Your task to perform on an android device: manage bookmarks in the chrome app Image 0: 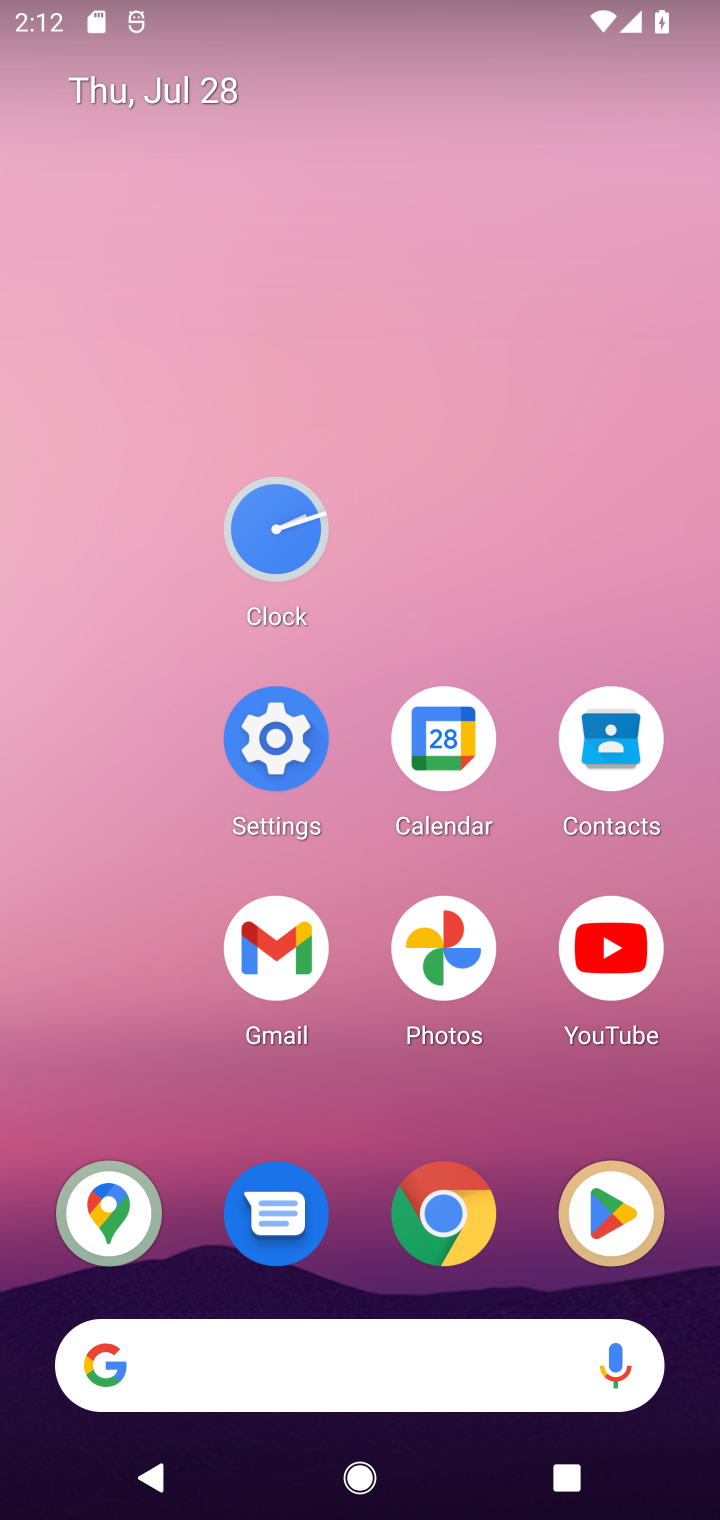
Step 0: click (451, 1208)
Your task to perform on an android device: manage bookmarks in the chrome app Image 1: 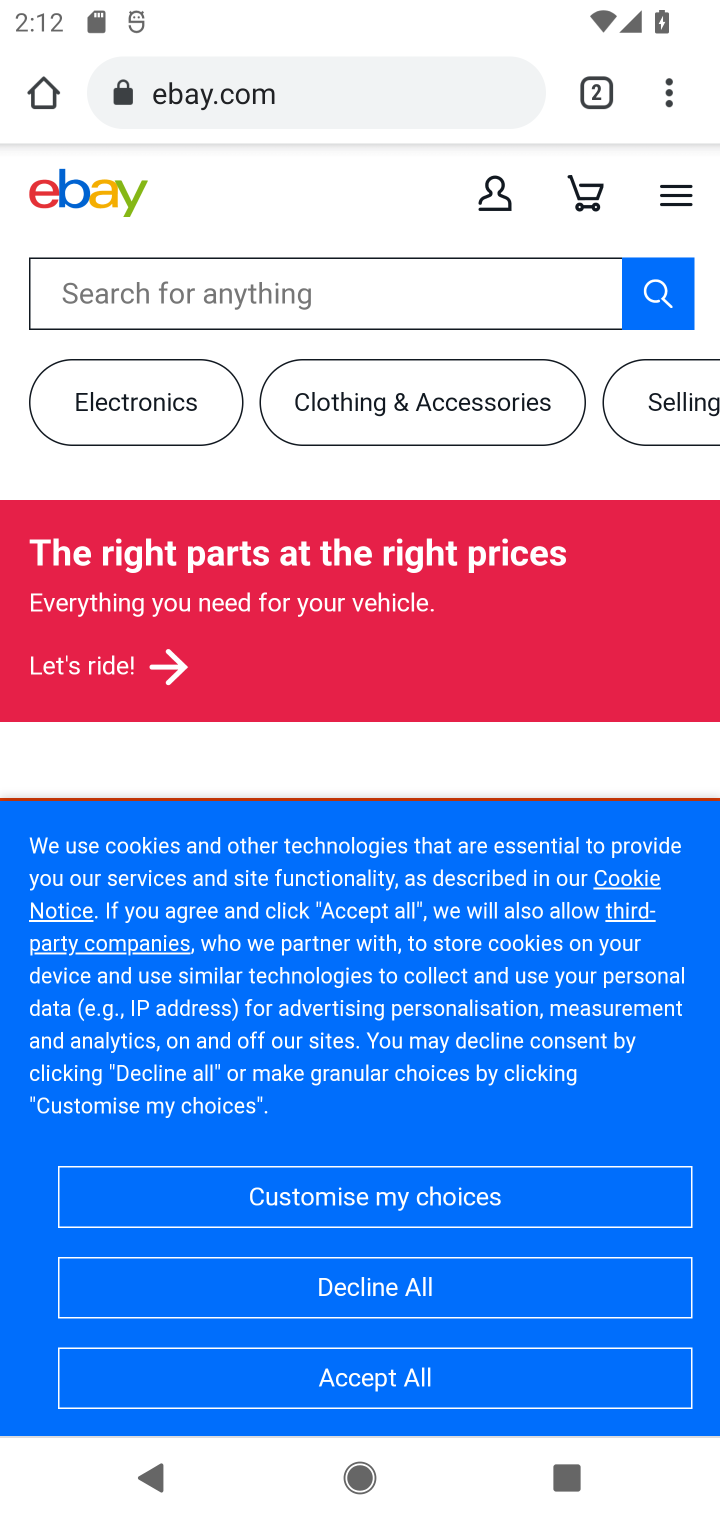
Step 1: click (685, 98)
Your task to perform on an android device: manage bookmarks in the chrome app Image 2: 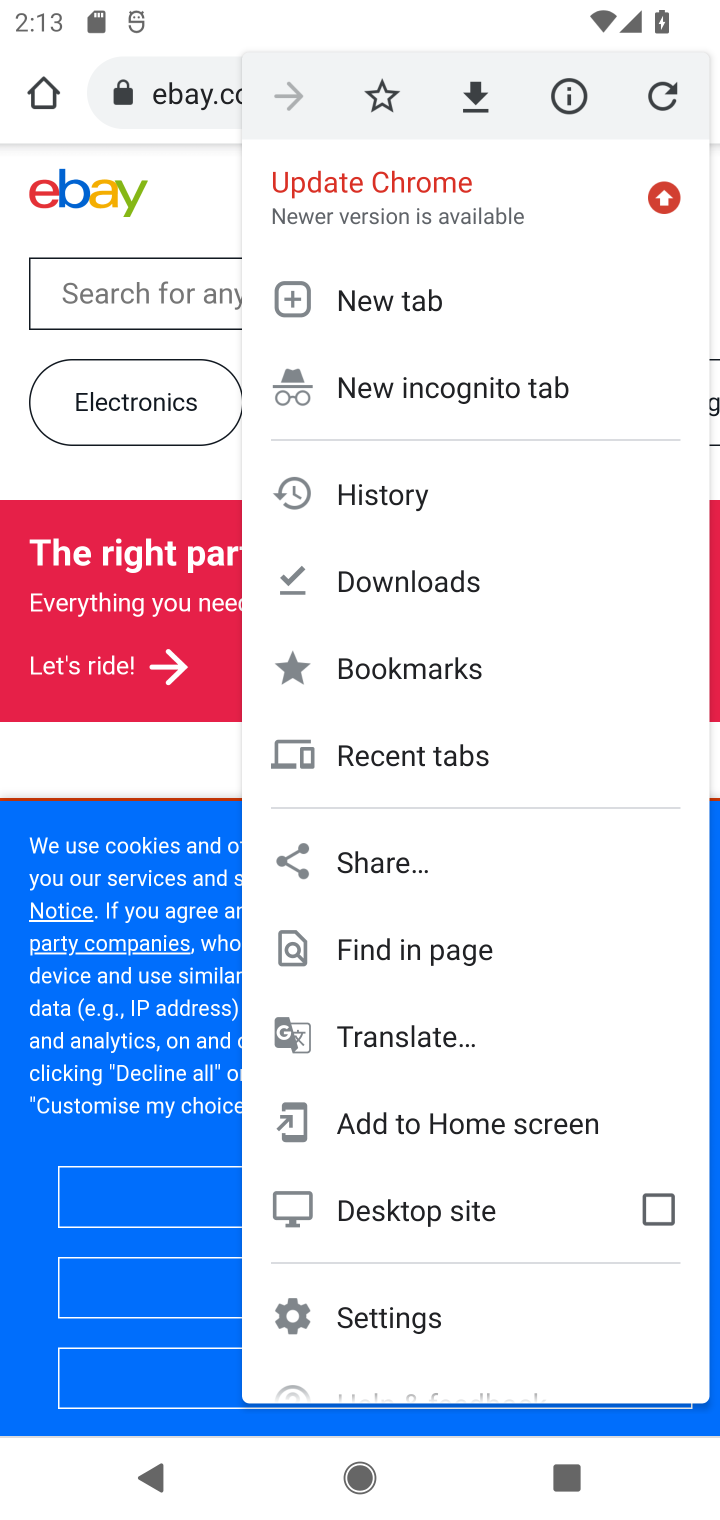
Step 2: click (420, 676)
Your task to perform on an android device: manage bookmarks in the chrome app Image 3: 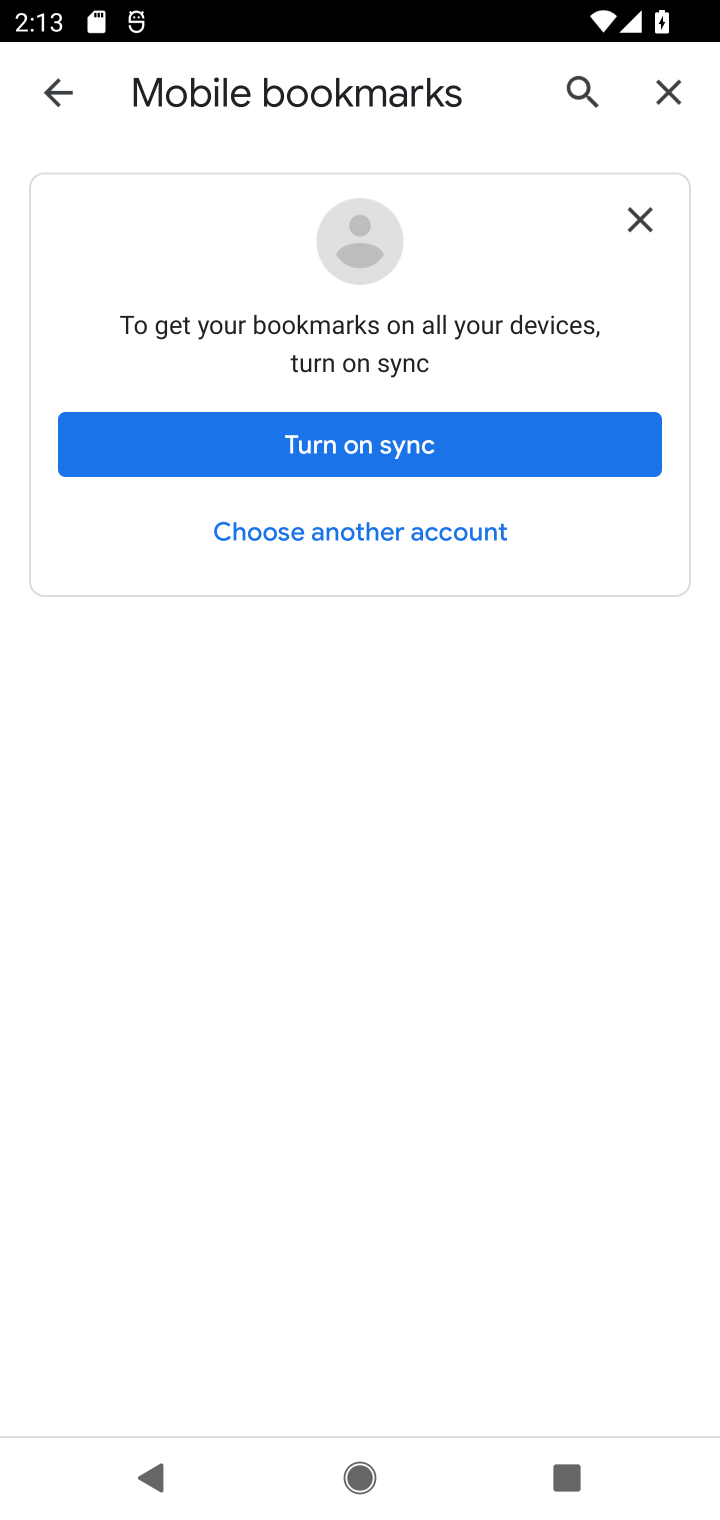
Step 3: click (647, 200)
Your task to perform on an android device: manage bookmarks in the chrome app Image 4: 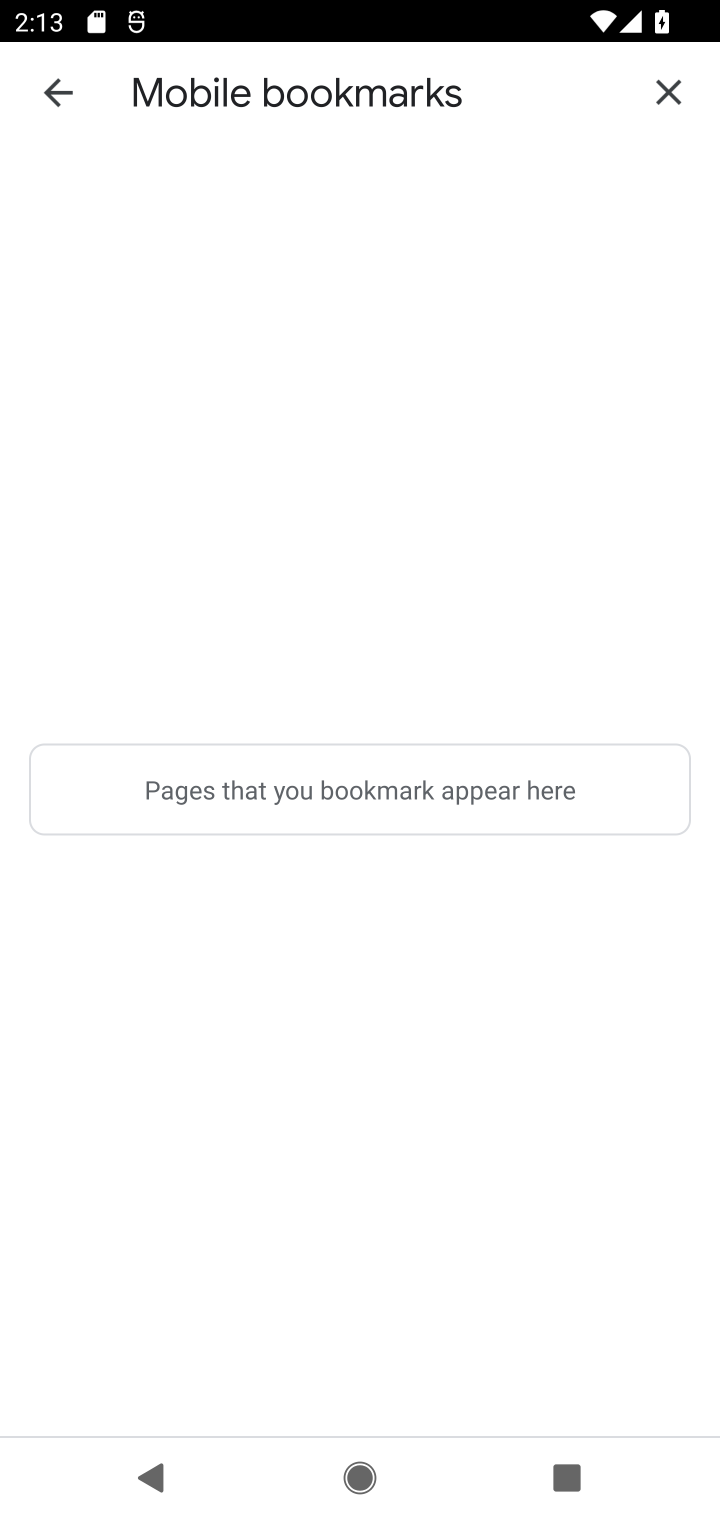
Step 4: task complete